Your task to perform on an android device: How much does a 2 bedroom apartment rent for in Philadelphia? Image 0: 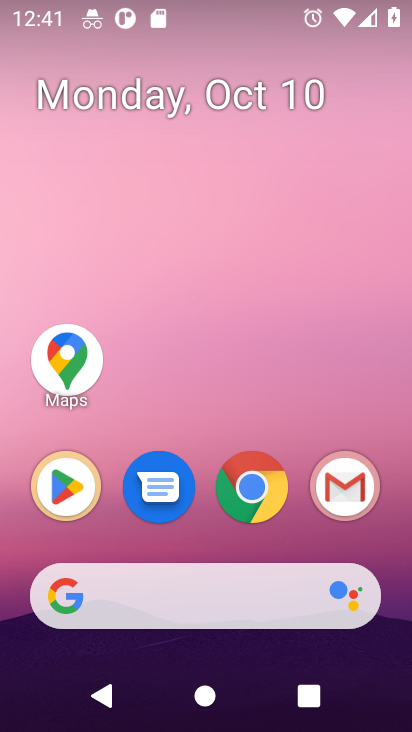
Step 0: click (269, 481)
Your task to perform on an android device: How much does a 2 bedroom apartment rent for in Philadelphia? Image 1: 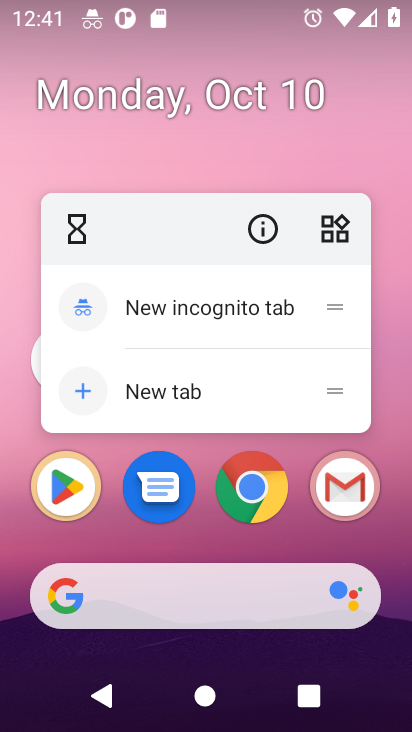
Step 1: click (258, 506)
Your task to perform on an android device: How much does a 2 bedroom apartment rent for in Philadelphia? Image 2: 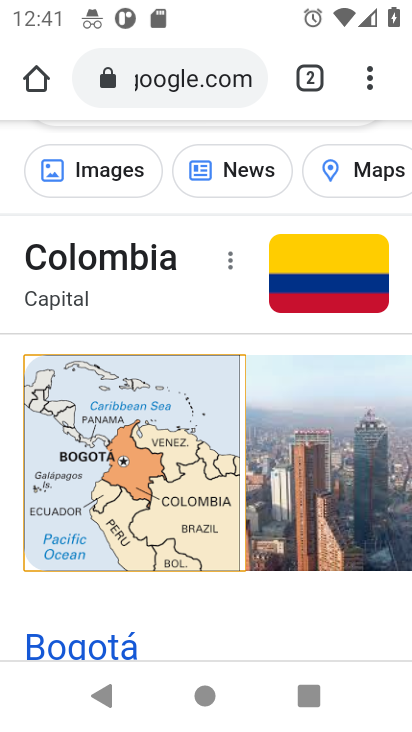
Step 2: click (165, 83)
Your task to perform on an android device: How much does a 2 bedroom apartment rent for in Philadelphia? Image 3: 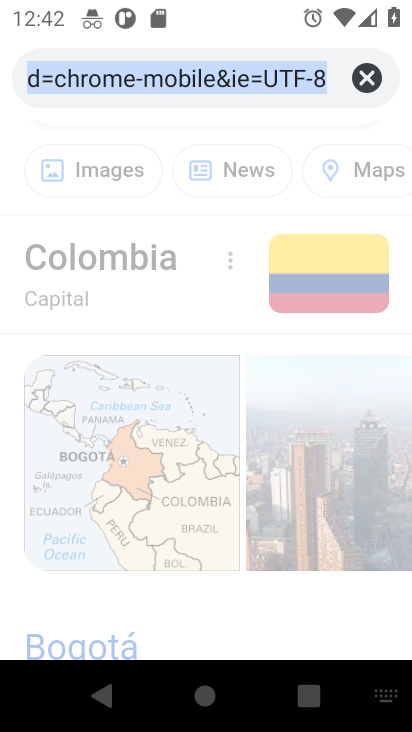
Step 3: type "2 bedroom apartment rent in Philadelphia"
Your task to perform on an android device: How much does a 2 bedroom apartment rent for in Philadelphia? Image 4: 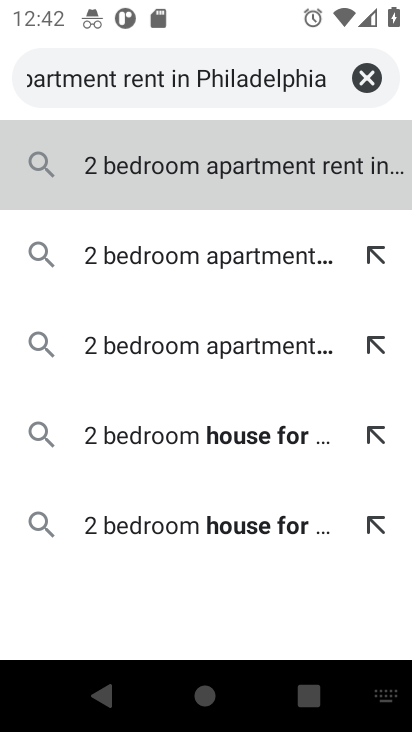
Step 4: press enter
Your task to perform on an android device: How much does a 2 bedroom apartment rent for in Philadelphia? Image 5: 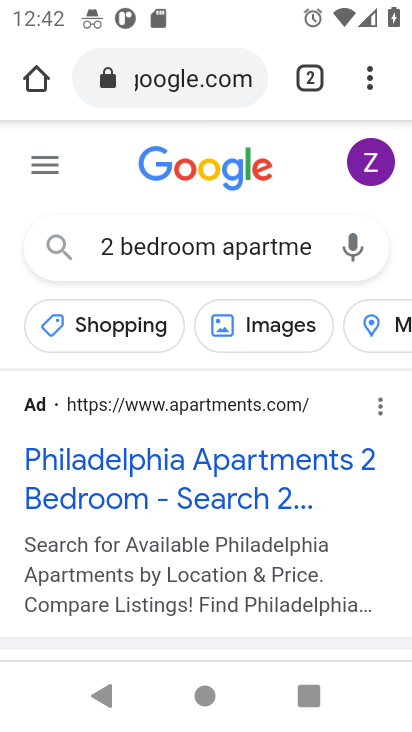
Step 5: click (193, 512)
Your task to perform on an android device: How much does a 2 bedroom apartment rent for in Philadelphia? Image 6: 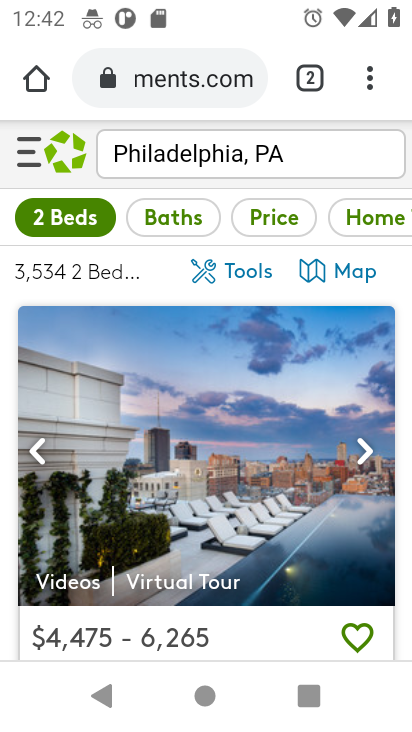
Step 6: task complete